Your task to perform on an android device: Go to eBay Image 0: 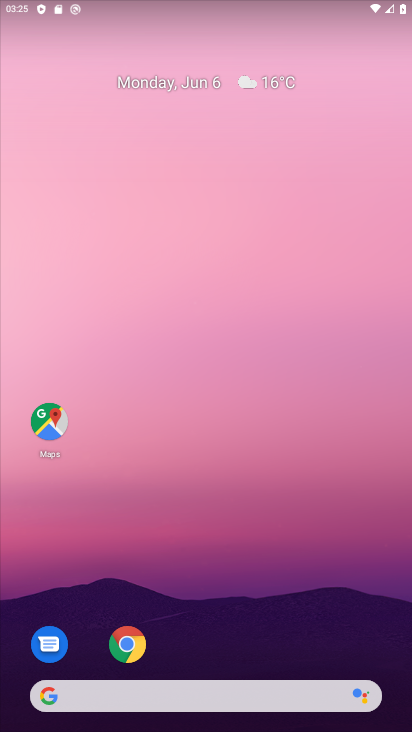
Step 0: click (119, 641)
Your task to perform on an android device: Go to eBay Image 1: 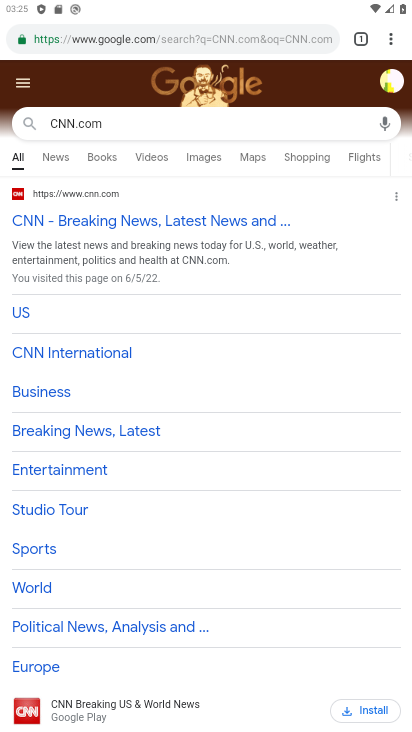
Step 1: click (330, 36)
Your task to perform on an android device: Go to eBay Image 2: 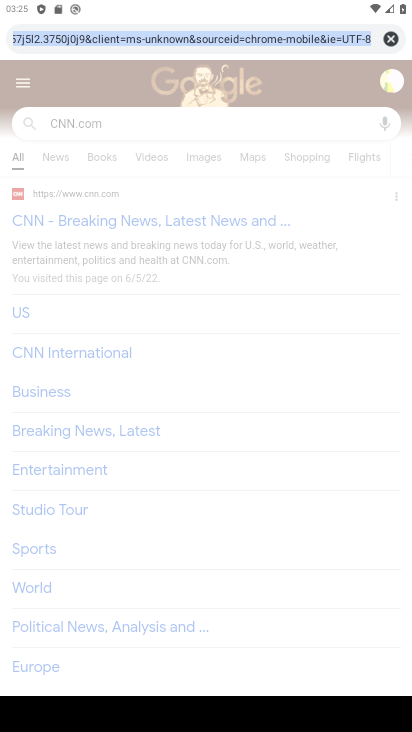
Step 2: click (385, 36)
Your task to perform on an android device: Go to eBay Image 3: 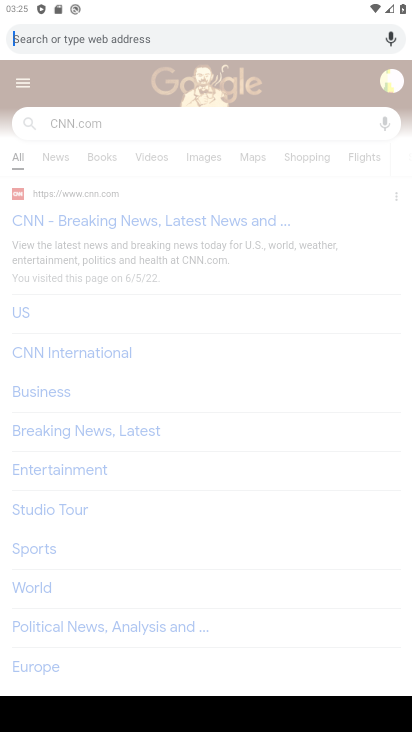
Step 3: type "eBay"
Your task to perform on an android device: Go to eBay Image 4: 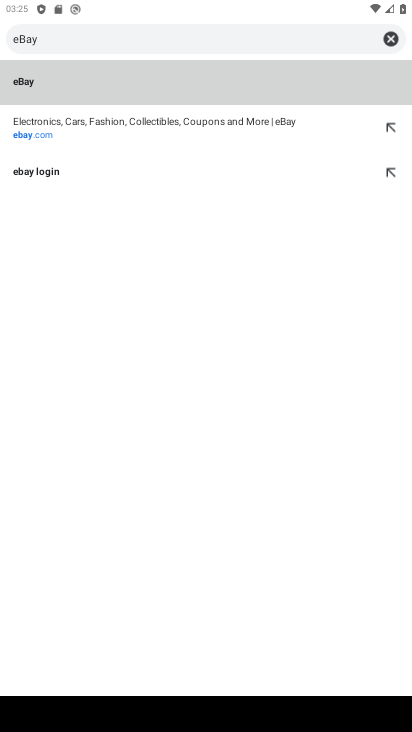
Step 4: click (27, 87)
Your task to perform on an android device: Go to eBay Image 5: 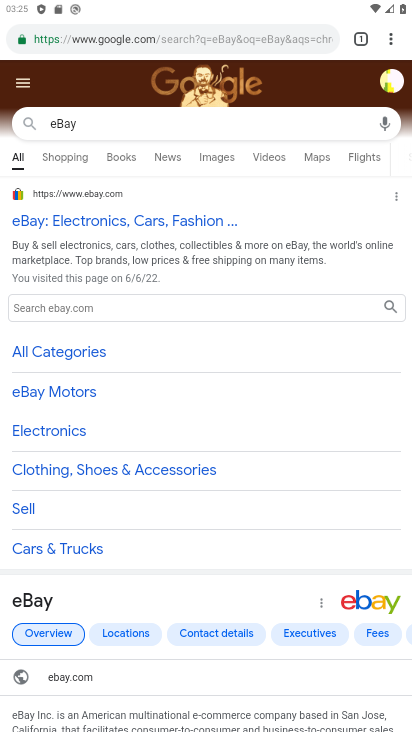
Step 5: task complete